Your task to perform on an android device: Open calendar and show me the third week of next month Image 0: 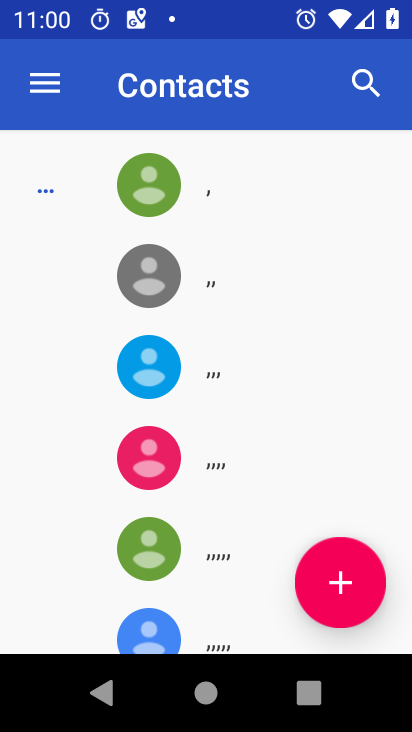
Step 0: press home button
Your task to perform on an android device: Open calendar and show me the third week of next month Image 1: 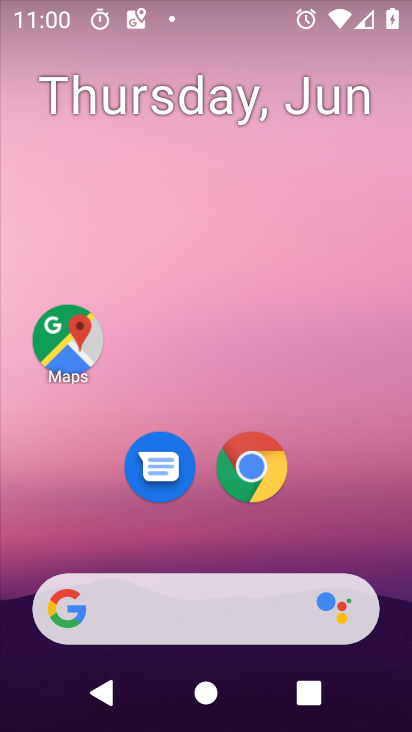
Step 1: drag from (37, 560) to (370, 103)
Your task to perform on an android device: Open calendar and show me the third week of next month Image 2: 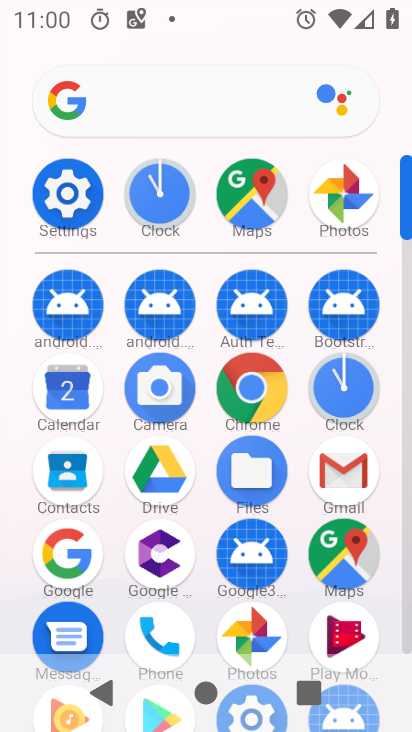
Step 2: click (51, 401)
Your task to perform on an android device: Open calendar and show me the third week of next month Image 3: 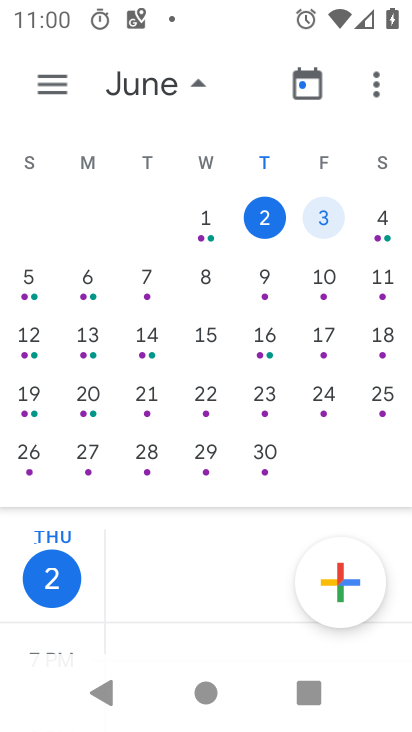
Step 3: drag from (383, 315) to (11, 318)
Your task to perform on an android device: Open calendar and show me the third week of next month Image 4: 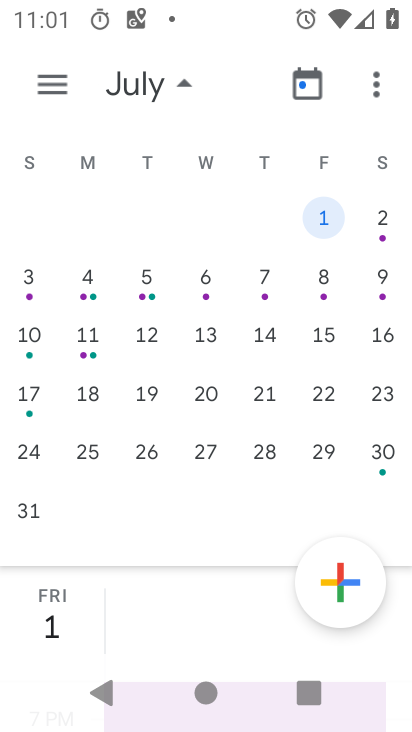
Step 4: click (199, 281)
Your task to perform on an android device: Open calendar and show me the third week of next month Image 5: 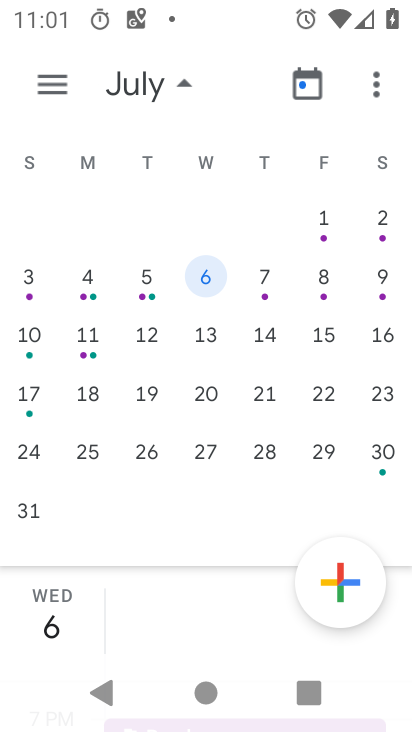
Step 5: click (208, 368)
Your task to perform on an android device: Open calendar and show me the third week of next month Image 6: 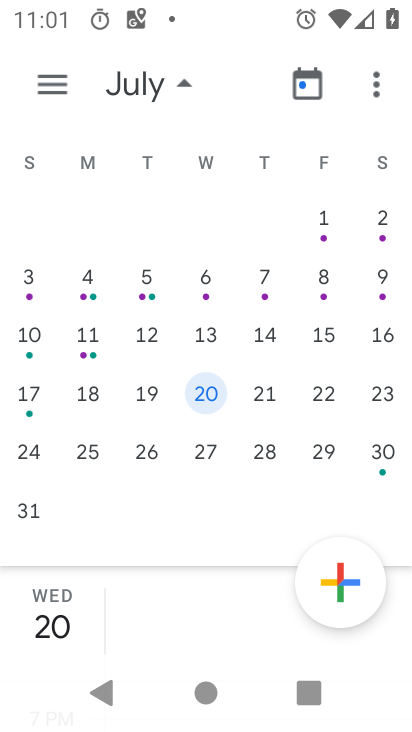
Step 6: click (210, 341)
Your task to perform on an android device: Open calendar and show me the third week of next month Image 7: 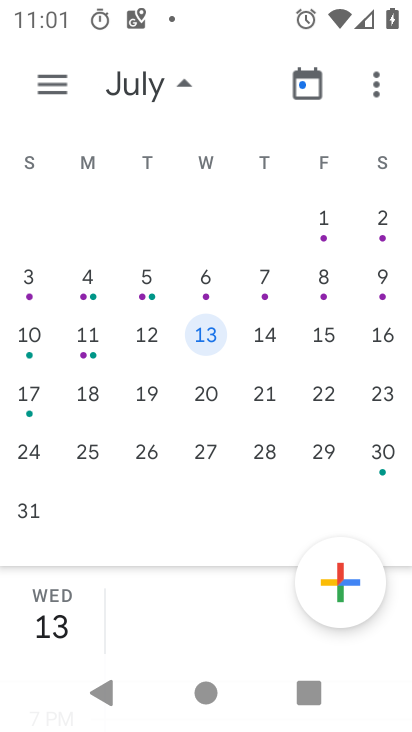
Step 7: task complete